Your task to perform on an android device: Open calendar and show me the first week of next month Image 0: 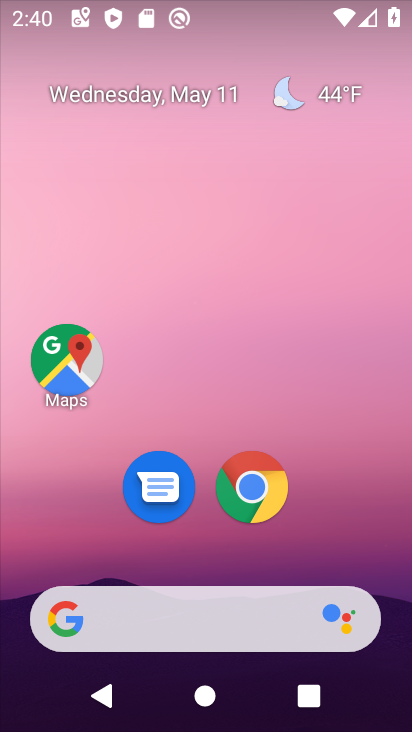
Step 0: drag from (199, 513) to (295, 17)
Your task to perform on an android device: Open calendar and show me the first week of next month Image 1: 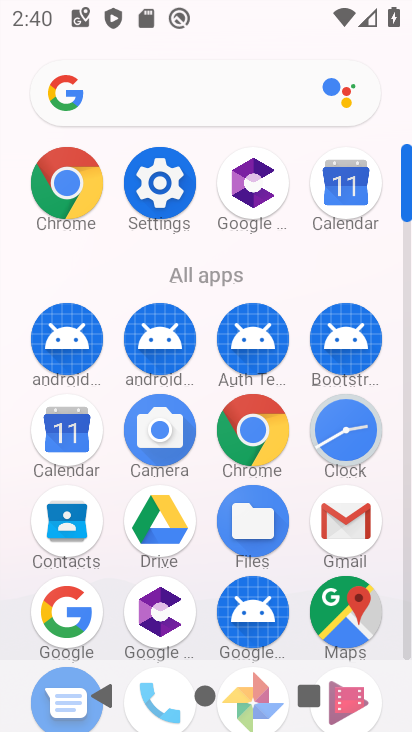
Step 1: click (325, 192)
Your task to perform on an android device: Open calendar and show me the first week of next month Image 2: 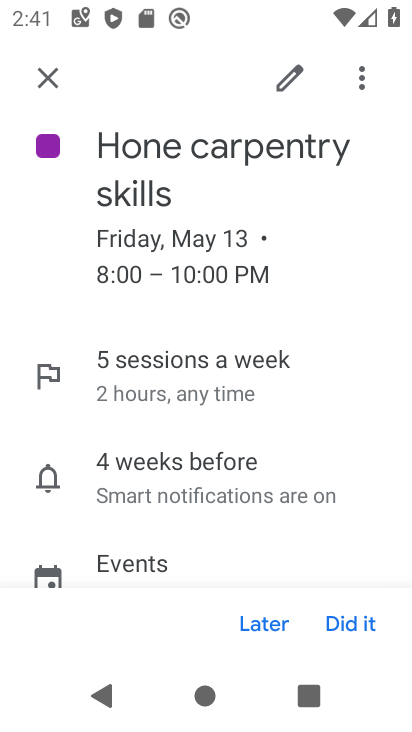
Step 2: click (47, 64)
Your task to perform on an android device: Open calendar and show me the first week of next month Image 3: 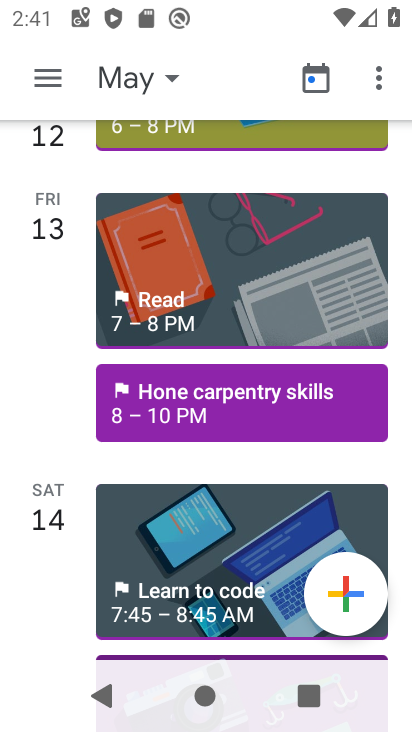
Step 3: click (149, 78)
Your task to perform on an android device: Open calendar and show me the first week of next month Image 4: 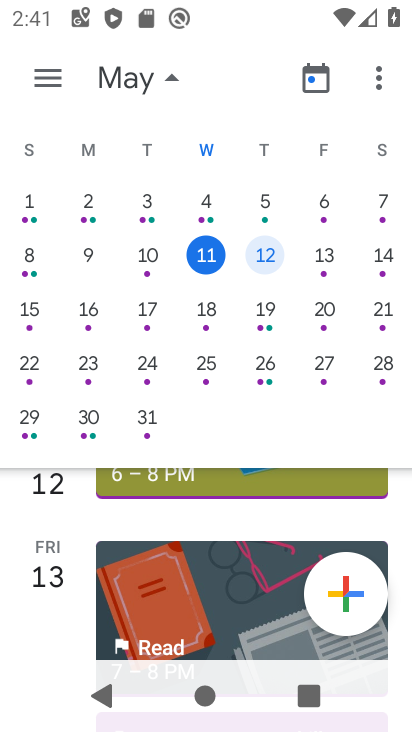
Step 4: drag from (381, 323) to (6, 326)
Your task to perform on an android device: Open calendar and show me the first week of next month Image 5: 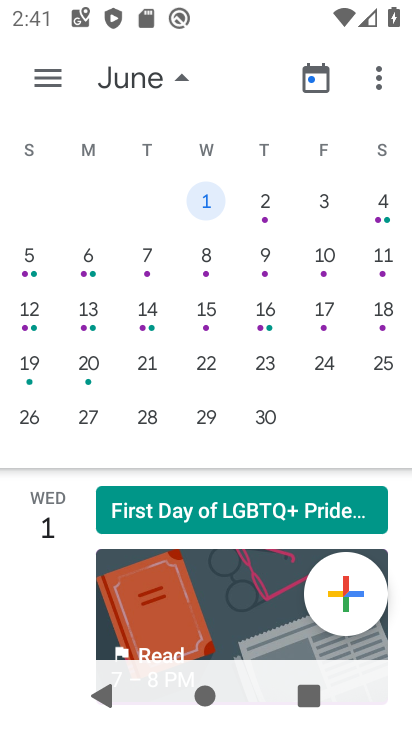
Step 5: click (210, 203)
Your task to perform on an android device: Open calendar and show me the first week of next month Image 6: 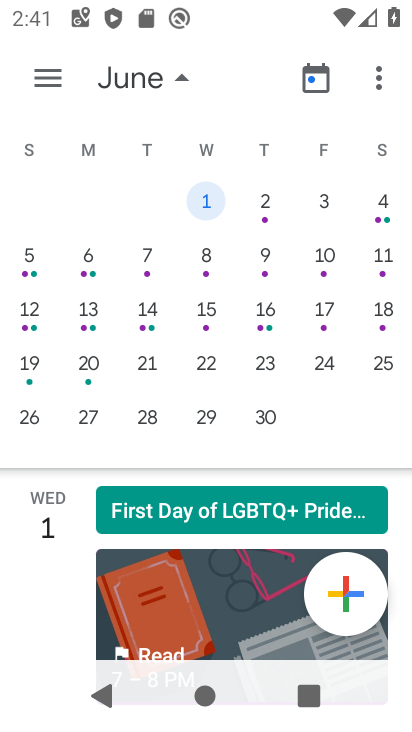
Step 6: task complete